Your task to perform on an android device: Check the weather Image 0: 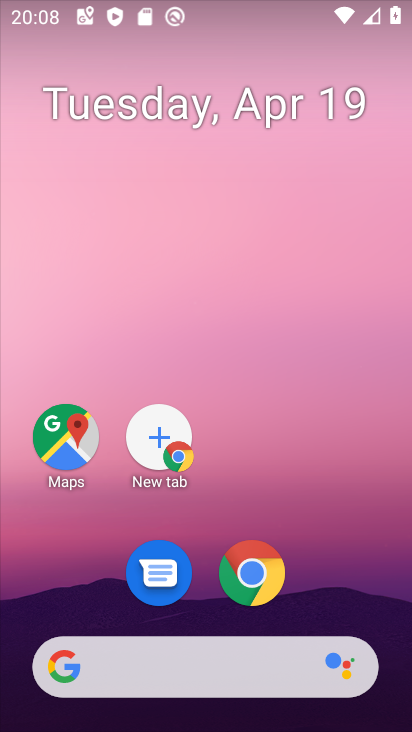
Step 0: drag from (2, 191) to (261, 179)
Your task to perform on an android device: Check the weather Image 1: 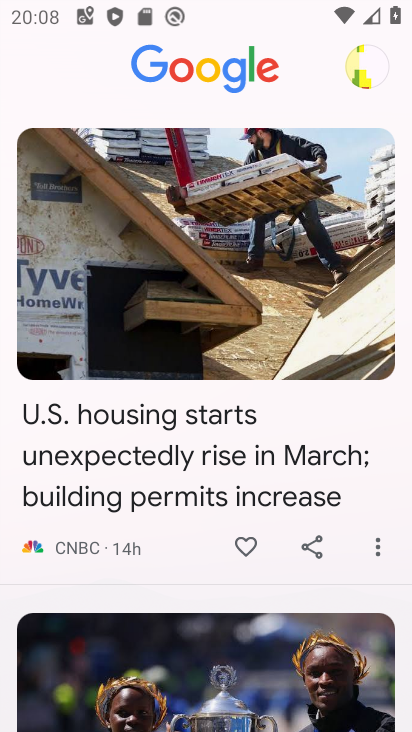
Step 1: task complete